Your task to perform on an android device: Open Google Maps and go to "Timeline" Image 0: 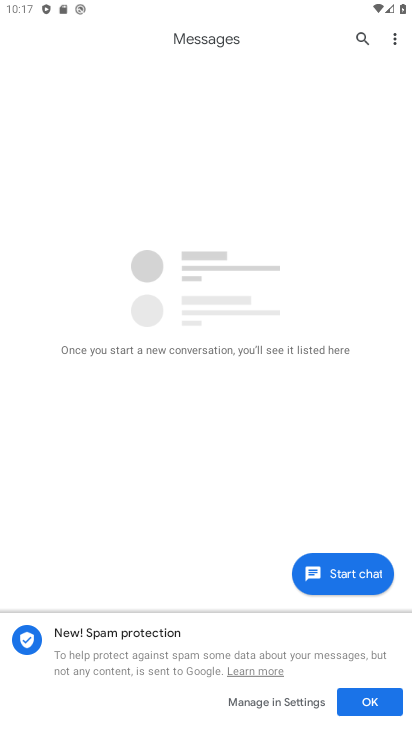
Step 0: press home button
Your task to perform on an android device: Open Google Maps and go to "Timeline" Image 1: 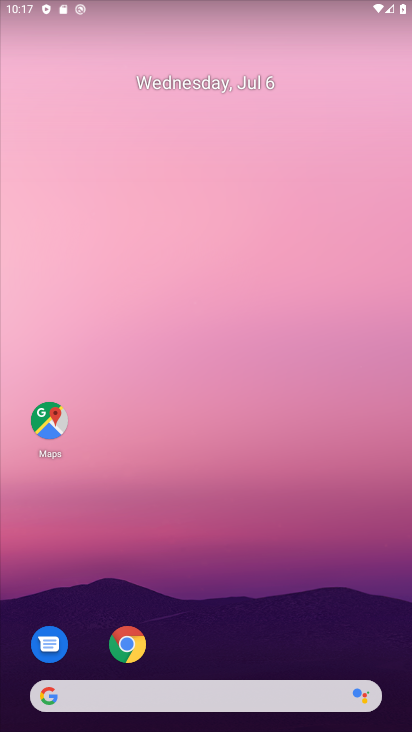
Step 1: drag from (144, 643) to (253, 165)
Your task to perform on an android device: Open Google Maps and go to "Timeline" Image 2: 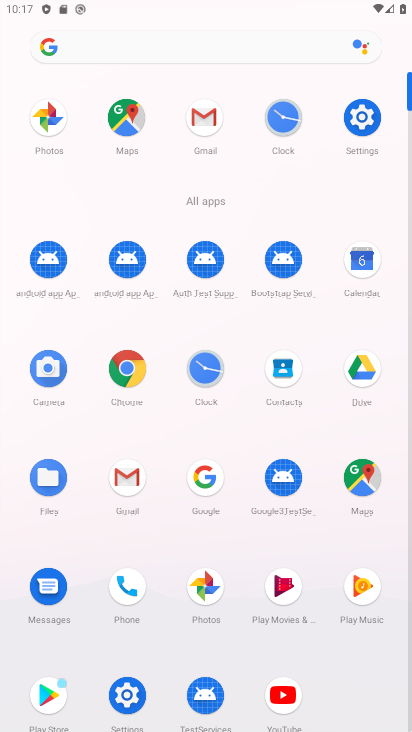
Step 2: click (356, 480)
Your task to perform on an android device: Open Google Maps and go to "Timeline" Image 3: 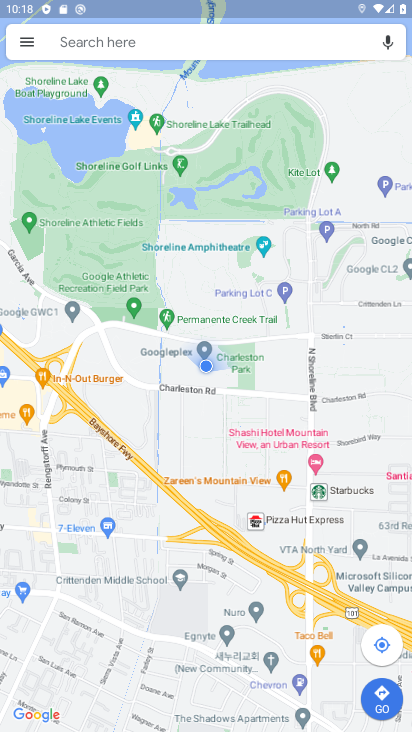
Step 3: click (36, 51)
Your task to perform on an android device: Open Google Maps and go to "Timeline" Image 4: 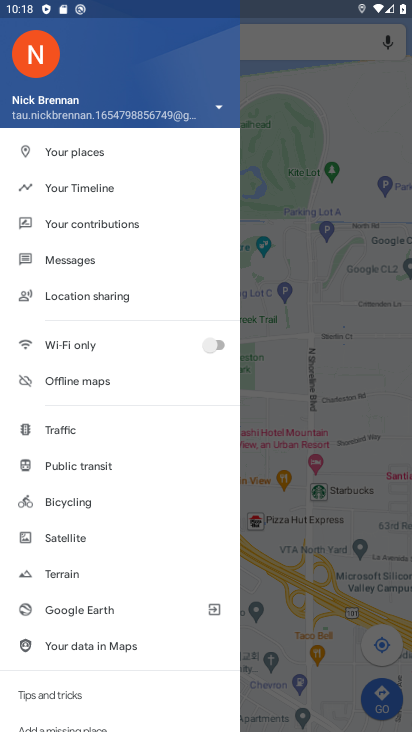
Step 4: click (120, 199)
Your task to perform on an android device: Open Google Maps and go to "Timeline" Image 5: 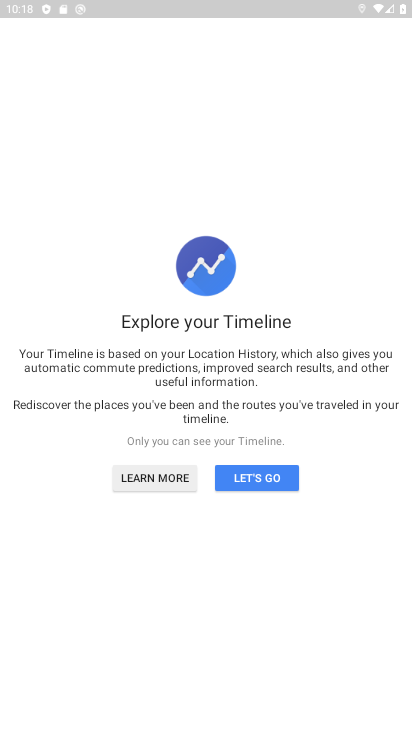
Step 5: click (281, 471)
Your task to perform on an android device: Open Google Maps and go to "Timeline" Image 6: 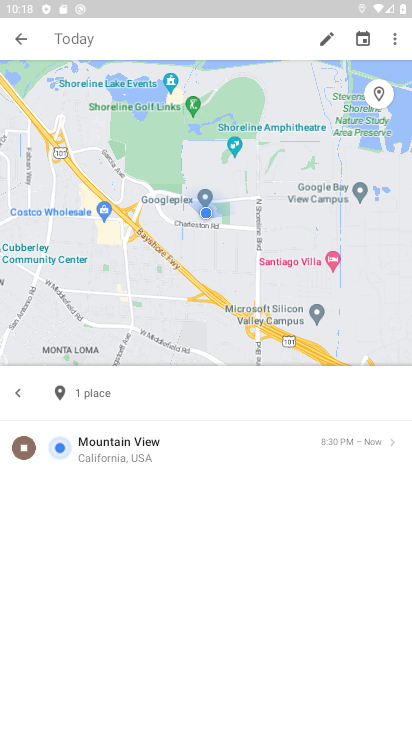
Step 6: task complete